Your task to perform on an android device: Do I have any events today? Image 0: 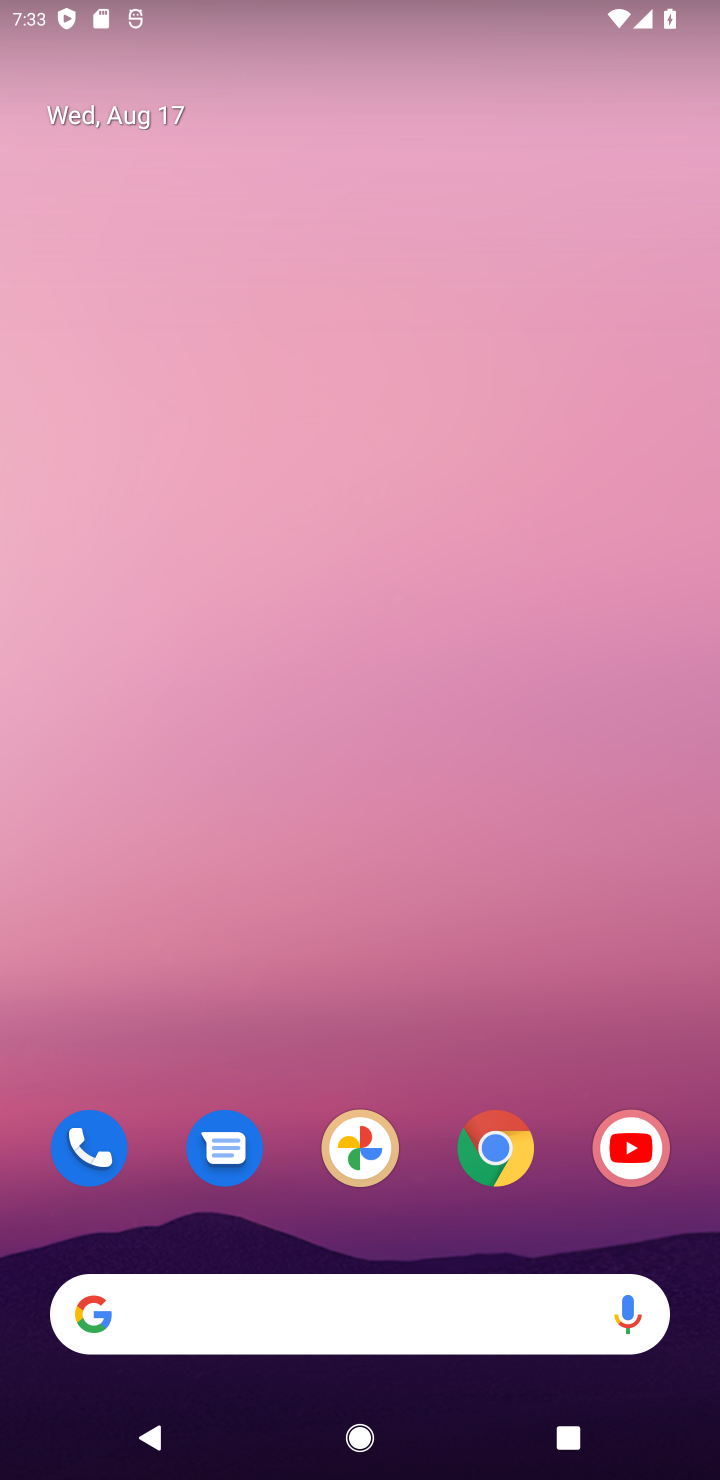
Step 0: drag from (240, 1036) to (240, 476)
Your task to perform on an android device: Do I have any events today? Image 1: 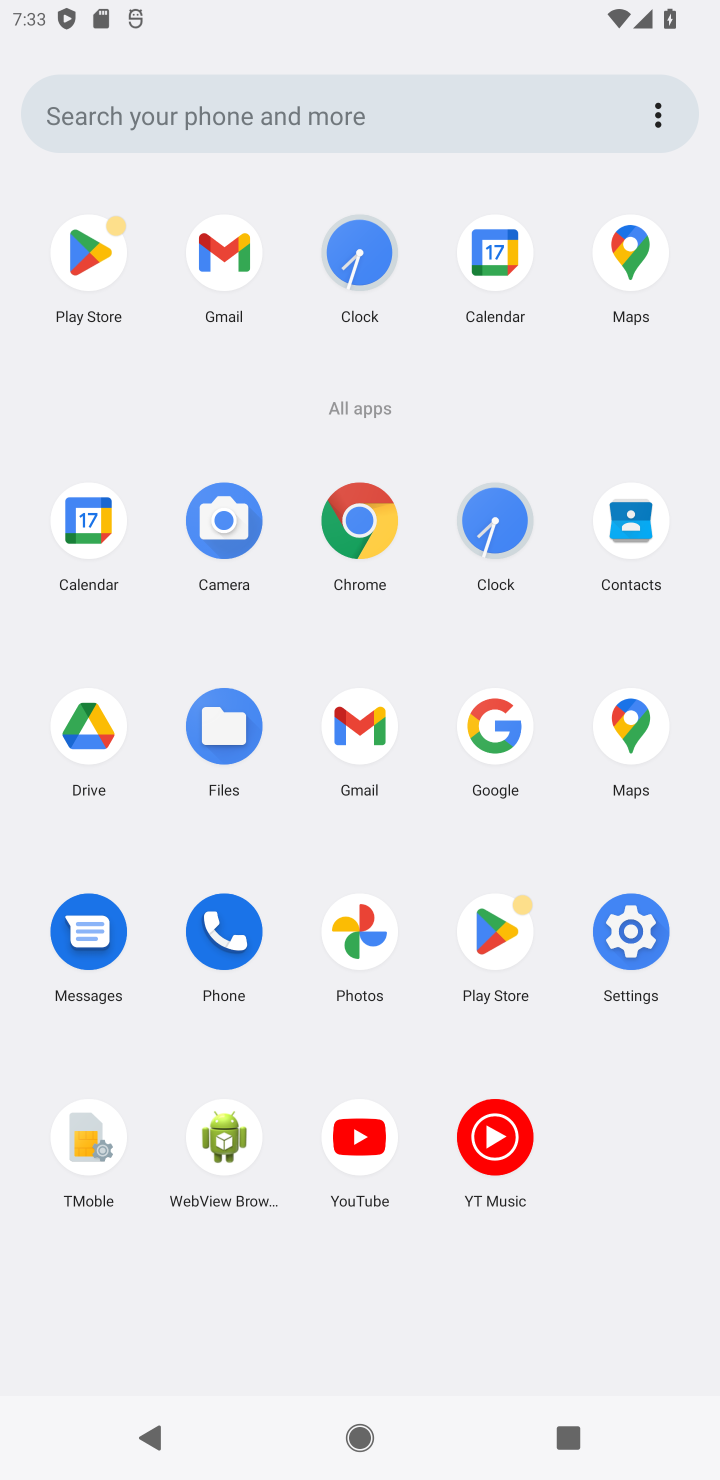
Step 1: click (490, 241)
Your task to perform on an android device: Do I have any events today? Image 2: 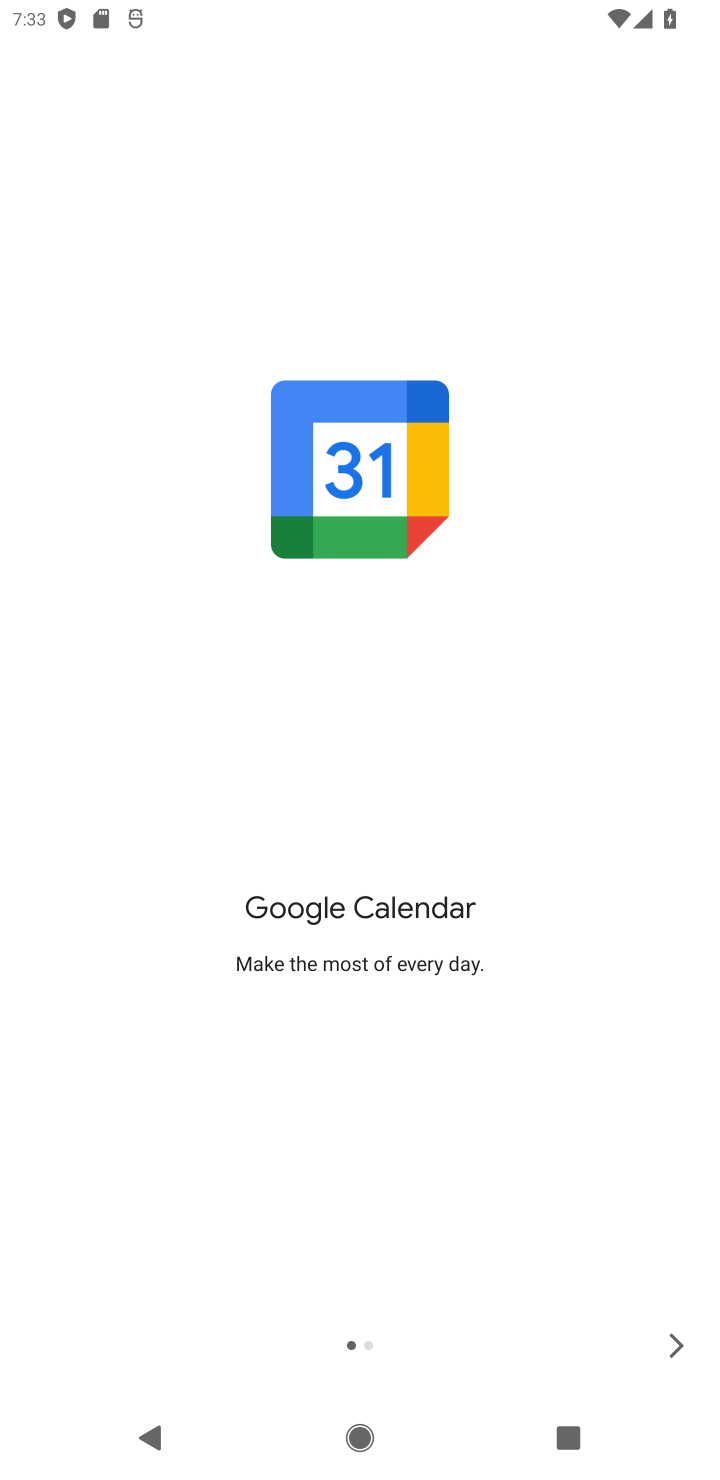
Step 2: click (669, 1347)
Your task to perform on an android device: Do I have any events today? Image 3: 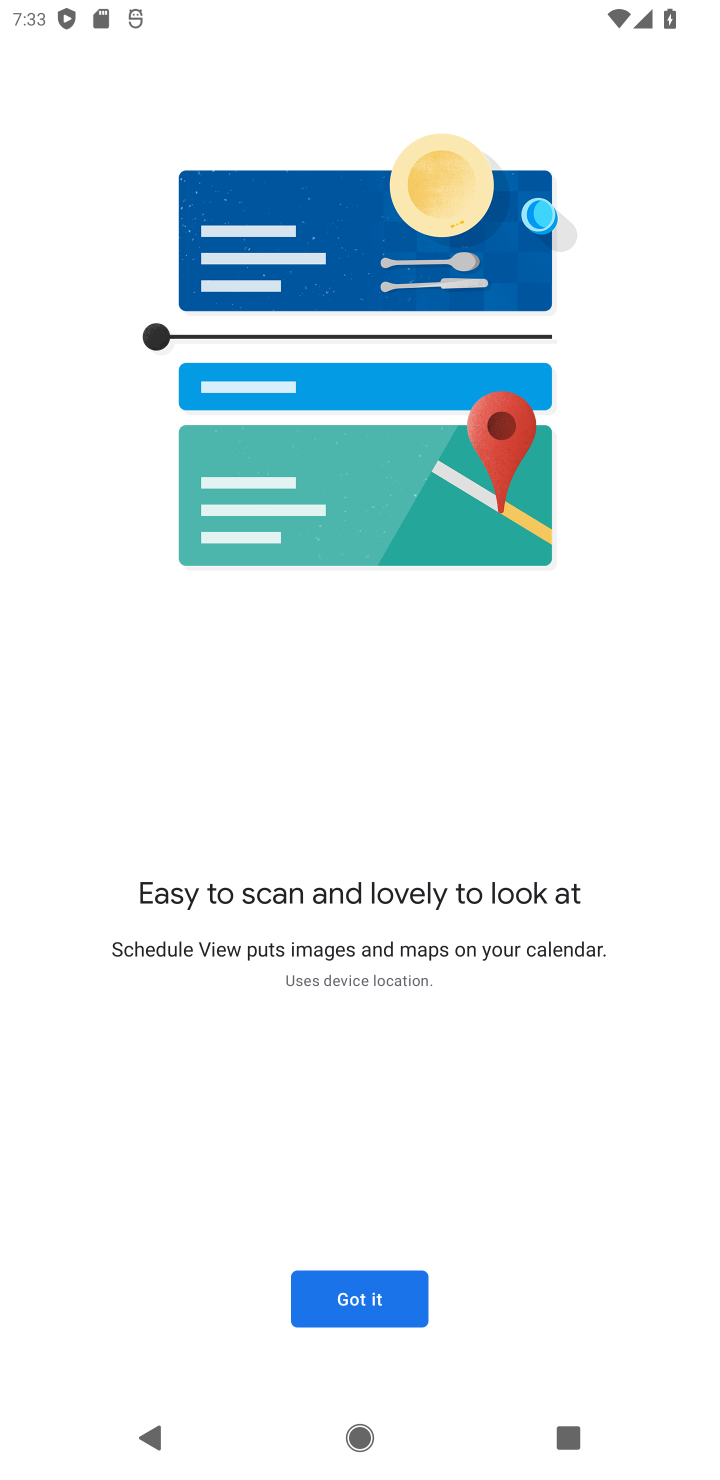
Step 3: click (352, 1294)
Your task to perform on an android device: Do I have any events today? Image 4: 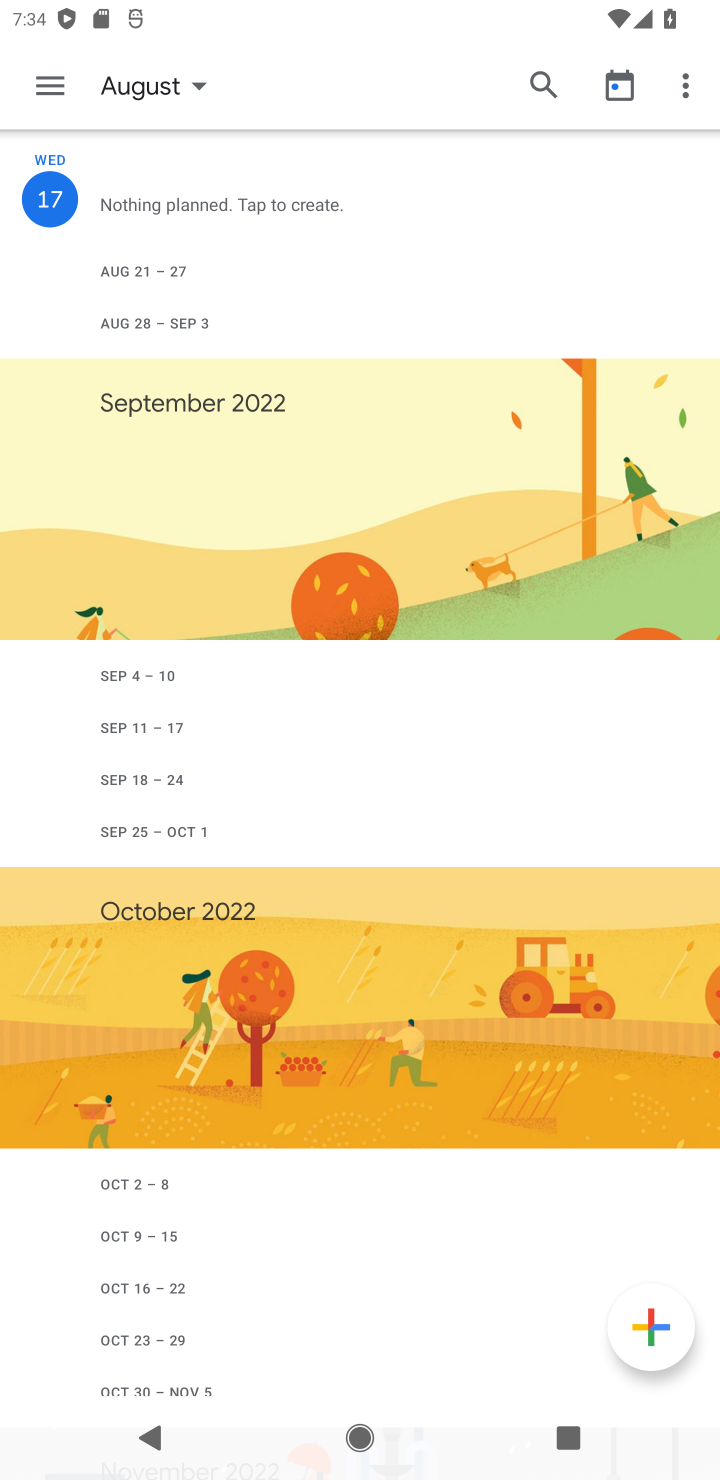
Step 4: task complete